Your task to perform on an android device: Go to Maps Image 0: 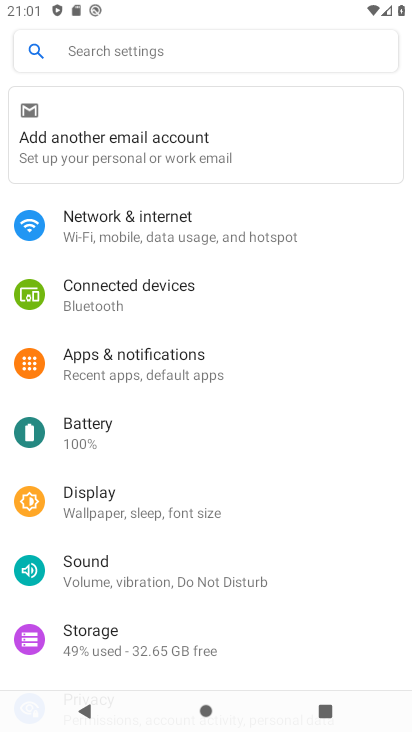
Step 0: press home button
Your task to perform on an android device: Go to Maps Image 1: 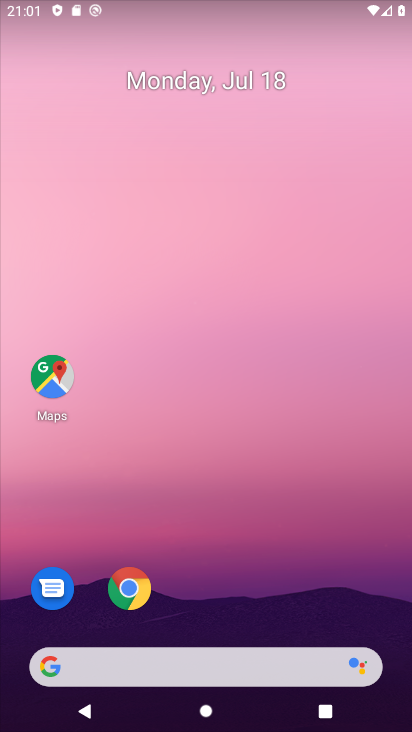
Step 1: click (60, 387)
Your task to perform on an android device: Go to Maps Image 2: 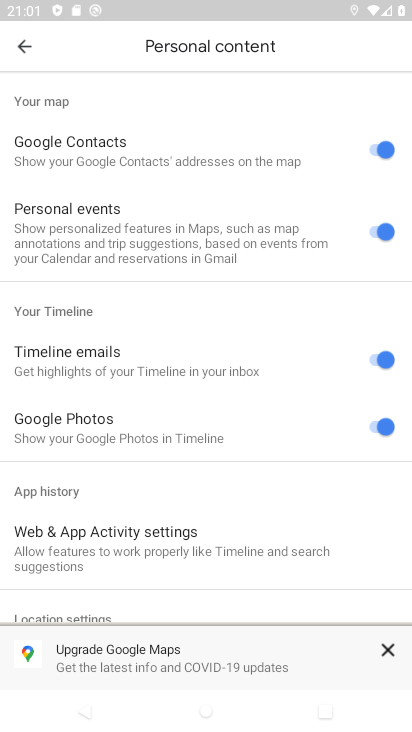
Step 2: task complete